Your task to perform on an android device: Check out the new ikea catalog. Image 0: 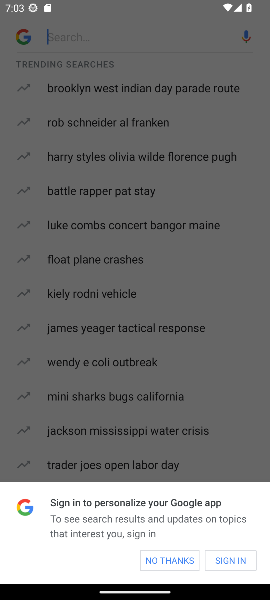
Step 0: press home button
Your task to perform on an android device: Check out the new ikea catalog. Image 1: 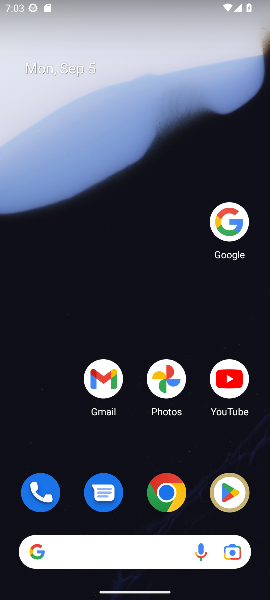
Step 1: click (227, 216)
Your task to perform on an android device: Check out the new ikea catalog. Image 2: 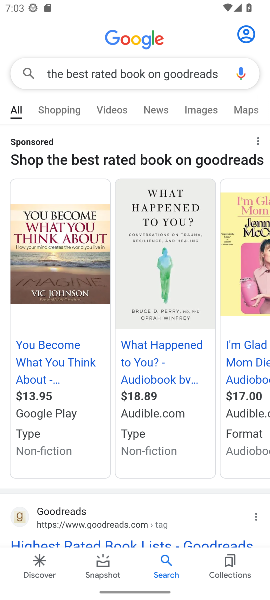
Step 2: click (128, 71)
Your task to perform on an android device: Check out the new ikea catalog. Image 3: 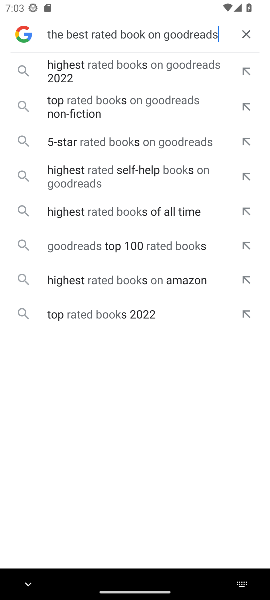
Step 3: click (250, 33)
Your task to perform on an android device: Check out the new ikea catalog. Image 4: 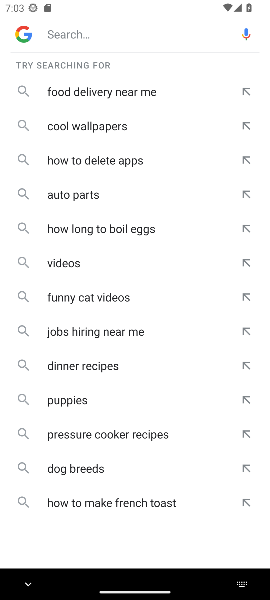
Step 4: click (97, 28)
Your task to perform on an android device: Check out the new ikea catalog. Image 5: 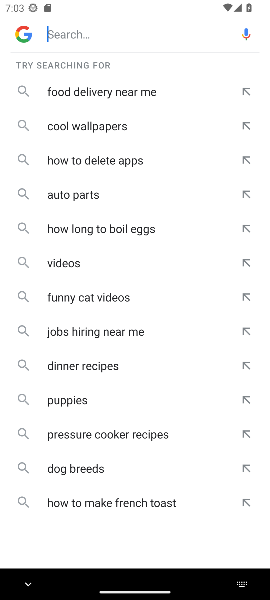
Step 5: type "the new ikea catalog "
Your task to perform on an android device: Check out the new ikea catalog. Image 6: 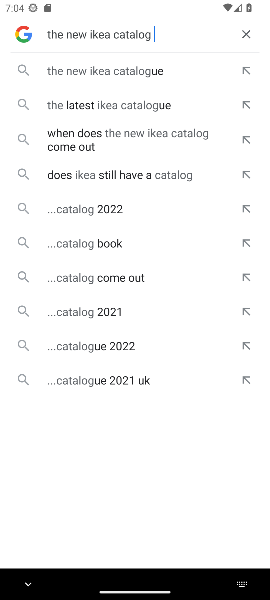
Step 6: click (91, 66)
Your task to perform on an android device: Check out the new ikea catalog. Image 7: 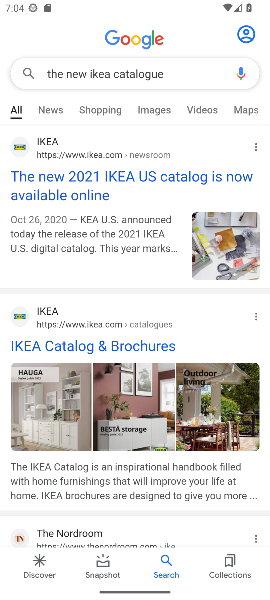
Step 7: click (69, 177)
Your task to perform on an android device: Check out the new ikea catalog. Image 8: 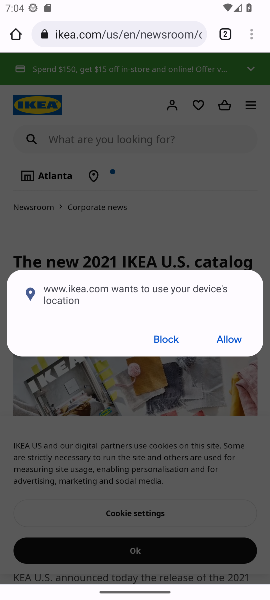
Step 8: click (235, 339)
Your task to perform on an android device: Check out the new ikea catalog. Image 9: 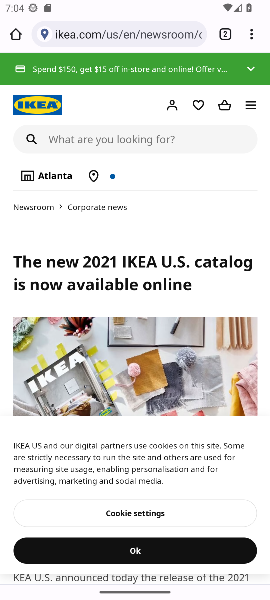
Step 9: drag from (132, 436) to (139, 175)
Your task to perform on an android device: Check out the new ikea catalog. Image 10: 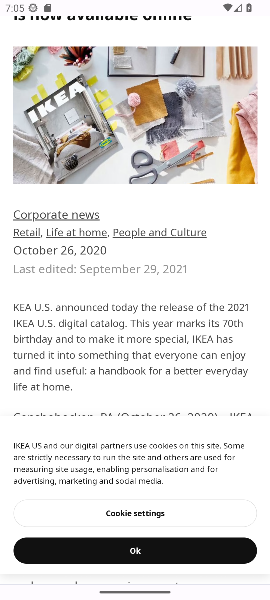
Step 10: click (138, 548)
Your task to perform on an android device: Check out the new ikea catalog. Image 11: 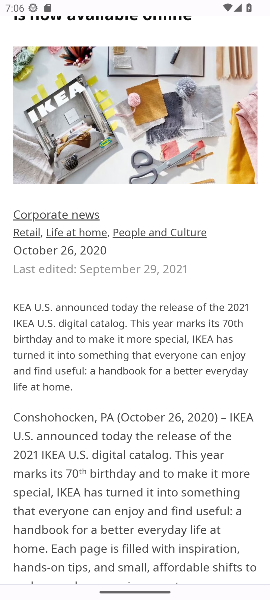
Step 11: task complete